Your task to perform on an android device: Open calendar and show me the fourth week of next month Image 0: 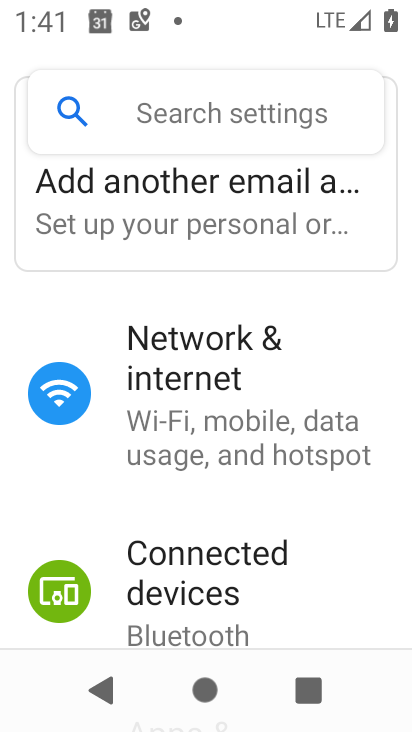
Step 0: press home button
Your task to perform on an android device: Open calendar and show me the fourth week of next month Image 1: 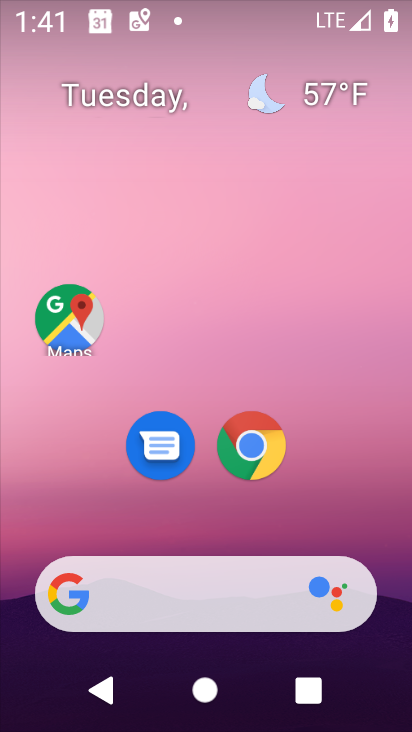
Step 1: drag from (366, 509) to (397, 195)
Your task to perform on an android device: Open calendar and show me the fourth week of next month Image 2: 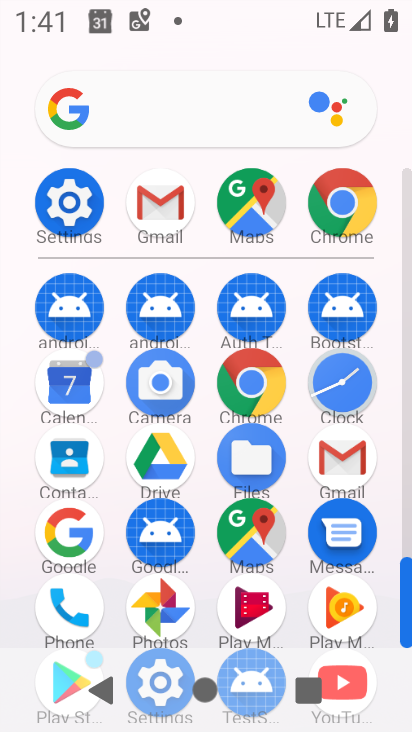
Step 2: click (75, 385)
Your task to perform on an android device: Open calendar and show me the fourth week of next month Image 3: 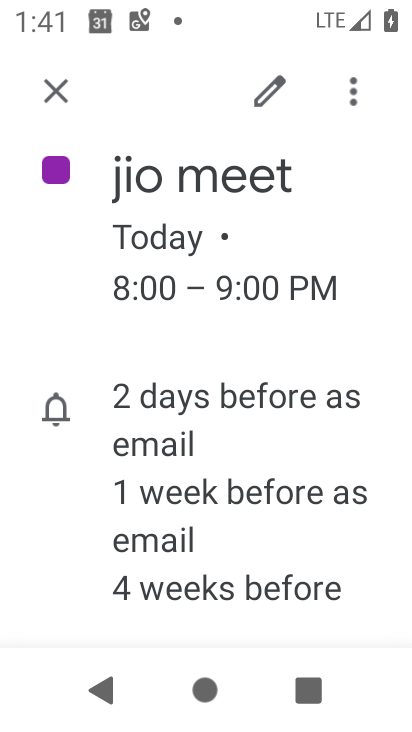
Step 3: click (65, 90)
Your task to perform on an android device: Open calendar and show me the fourth week of next month Image 4: 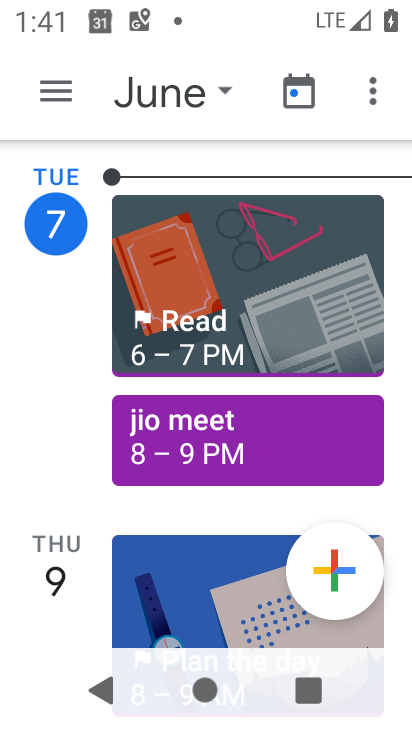
Step 4: click (220, 87)
Your task to perform on an android device: Open calendar and show me the fourth week of next month Image 5: 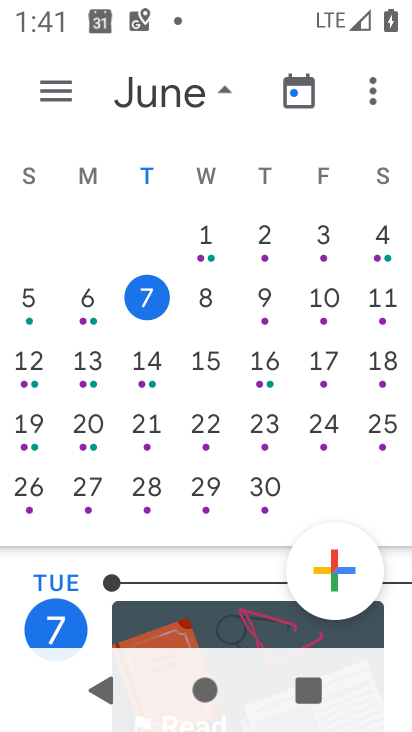
Step 5: drag from (377, 202) to (8, 213)
Your task to perform on an android device: Open calendar and show me the fourth week of next month Image 6: 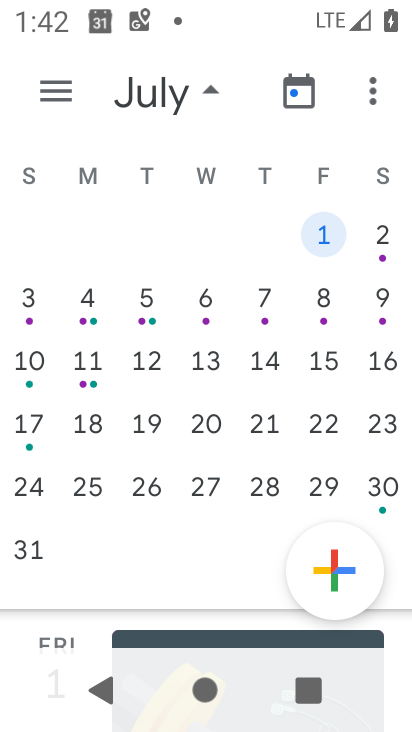
Step 6: click (91, 415)
Your task to perform on an android device: Open calendar and show me the fourth week of next month Image 7: 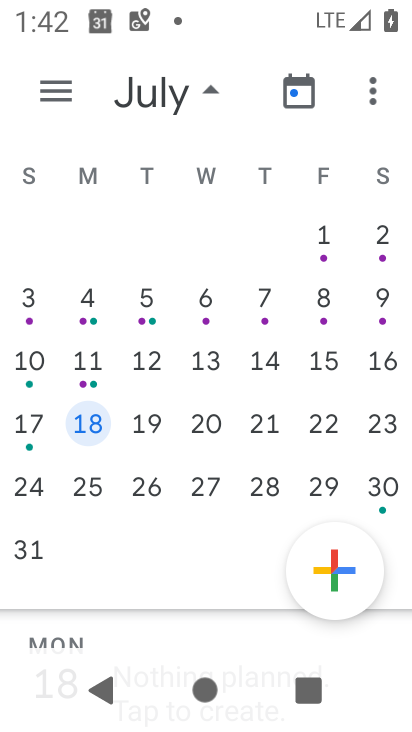
Step 7: task complete